Your task to perform on an android device: Go to wifi settings Image 0: 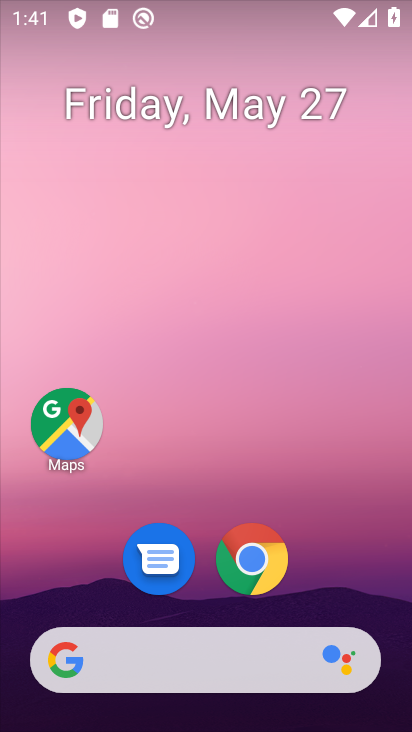
Step 0: drag from (109, 627) to (281, 83)
Your task to perform on an android device: Go to wifi settings Image 1: 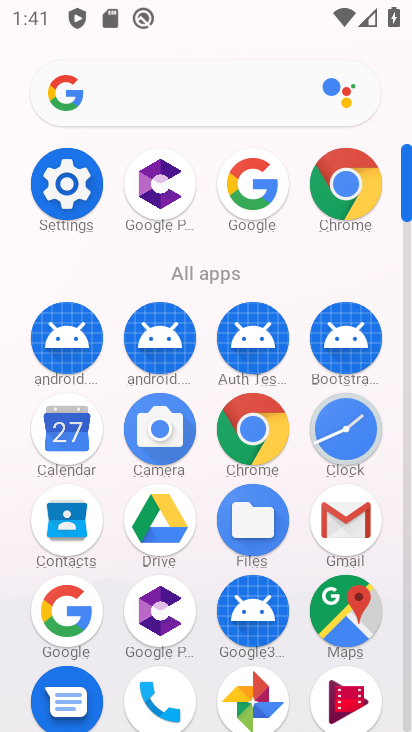
Step 1: drag from (216, 598) to (274, 370)
Your task to perform on an android device: Go to wifi settings Image 2: 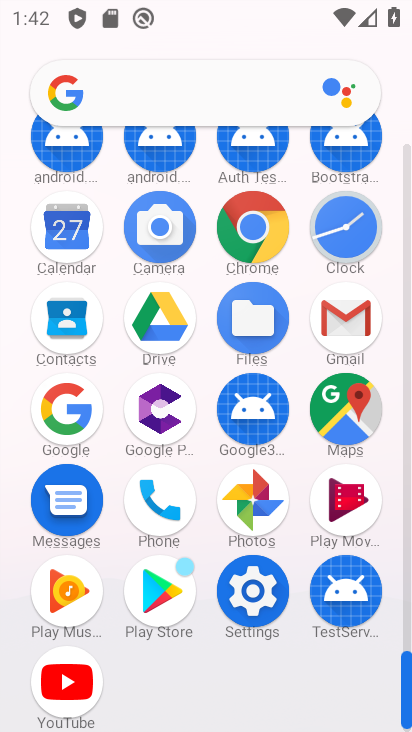
Step 2: click (250, 619)
Your task to perform on an android device: Go to wifi settings Image 3: 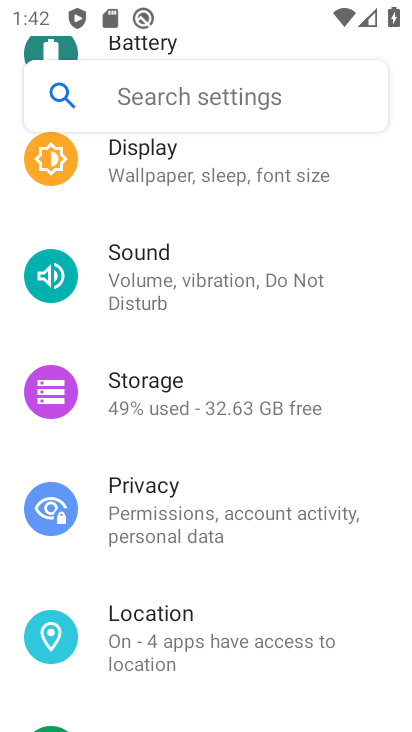
Step 3: drag from (228, 199) to (164, 632)
Your task to perform on an android device: Go to wifi settings Image 4: 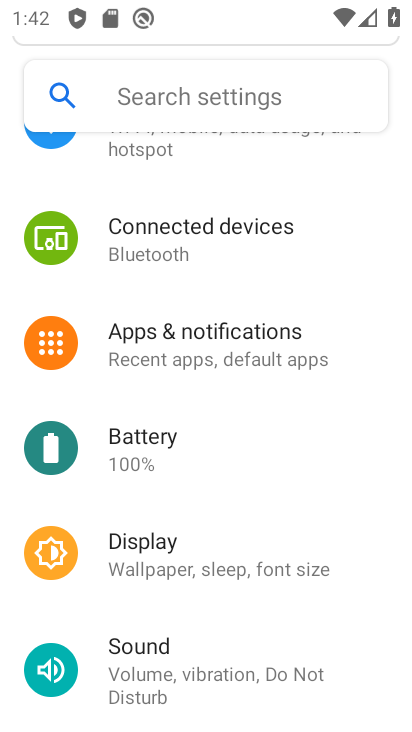
Step 4: drag from (209, 201) to (183, 559)
Your task to perform on an android device: Go to wifi settings Image 5: 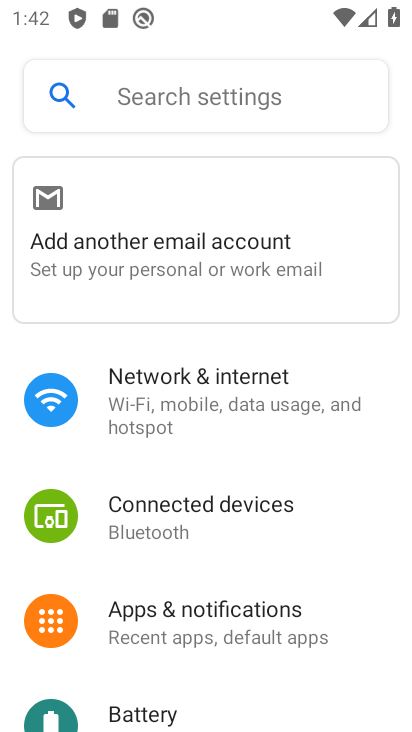
Step 5: click (168, 393)
Your task to perform on an android device: Go to wifi settings Image 6: 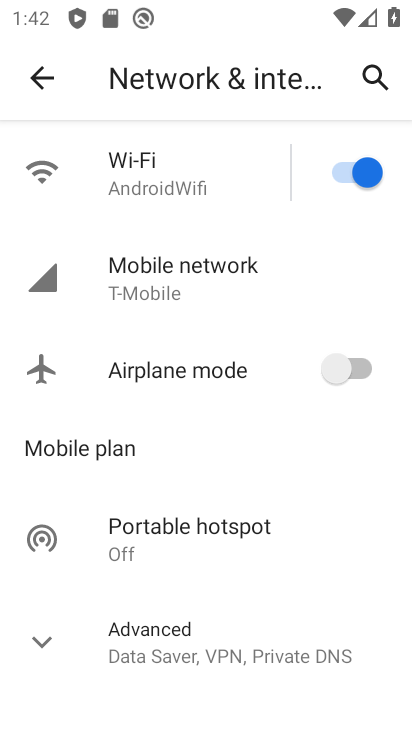
Step 6: click (151, 196)
Your task to perform on an android device: Go to wifi settings Image 7: 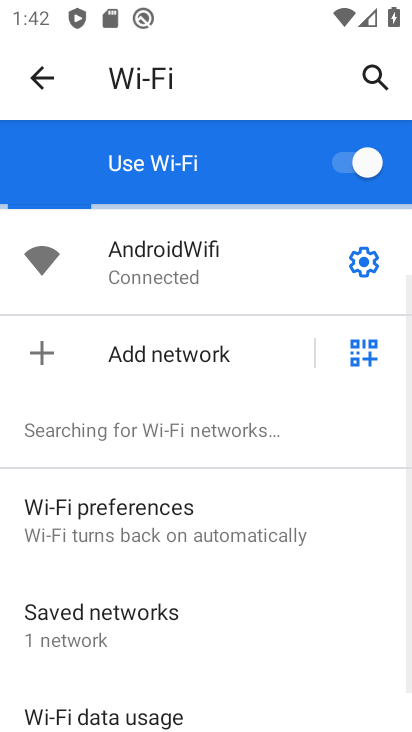
Step 7: task complete